Your task to perform on an android device: Open Youtube and go to the subscriptions tab Image 0: 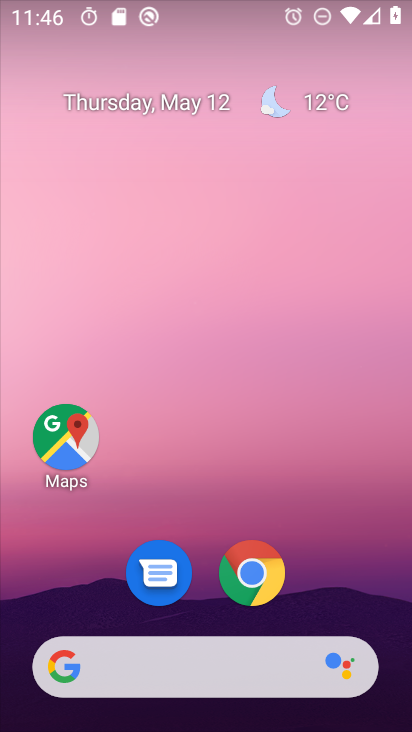
Step 0: drag from (401, 684) to (358, 388)
Your task to perform on an android device: Open Youtube and go to the subscriptions tab Image 1: 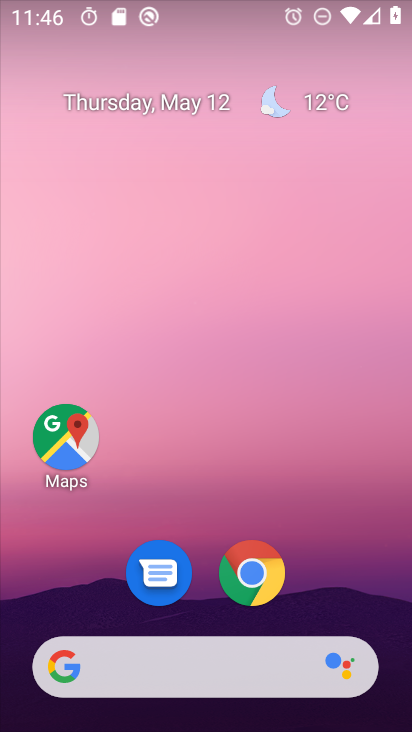
Step 1: drag from (404, 692) to (406, 348)
Your task to perform on an android device: Open Youtube and go to the subscriptions tab Image 2: 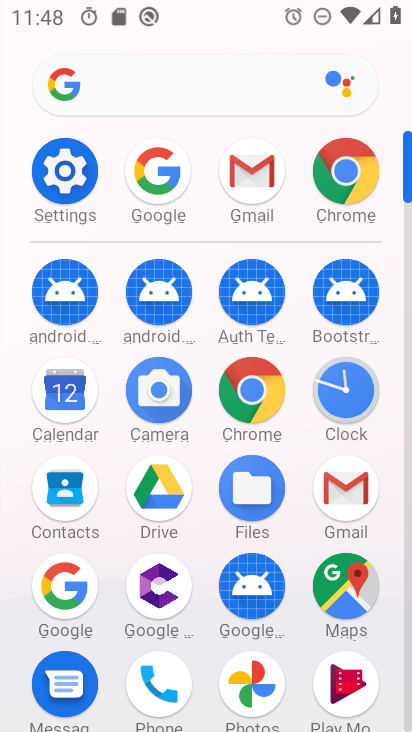
Step 2: drag from (410, 146) to (402, 87)
Your task to perform on an android device: Open Youtube and go to the subscriptions tab Image 3: 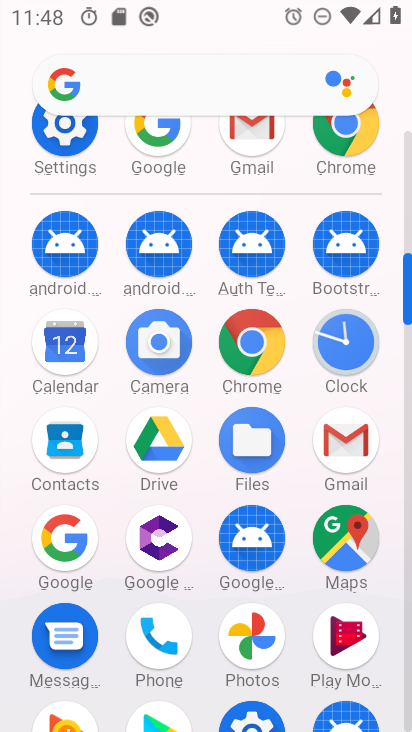
Step 3: drag from (411, 262) to (411, 182)
Your task to perform on an android device: Open Youtube and go to the subscriptions tab Image 4: 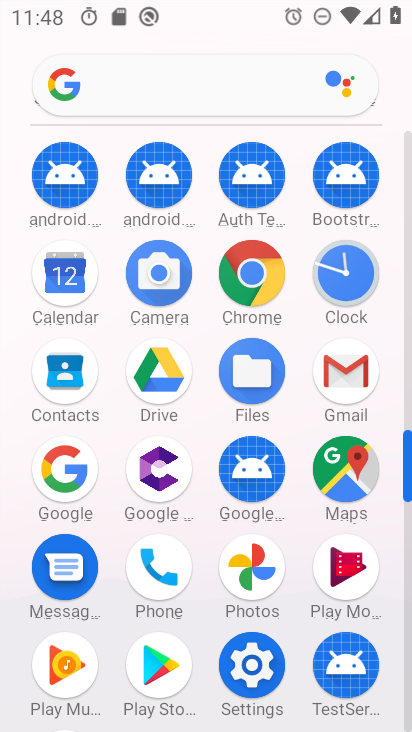
Step 4: drag from (411, 435) to (382, 631)
Your task to perform on an android device: Open Youtube and go to the subscriptions tab Image 5: 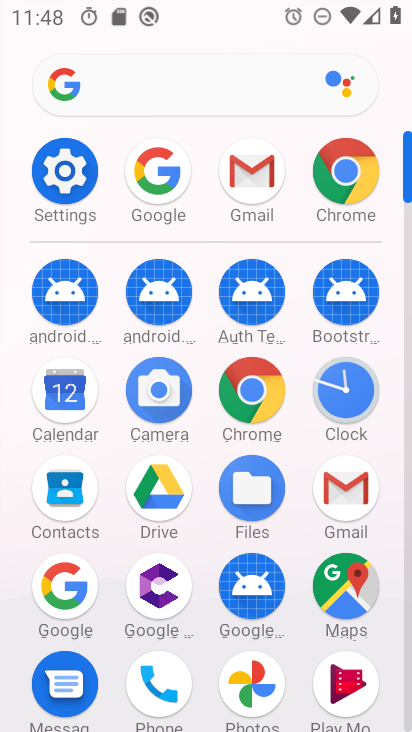
Step 5: click (65, 689)
Your task to perform on an android device: Open Youtube and go to the subscriptions tab Image 6: 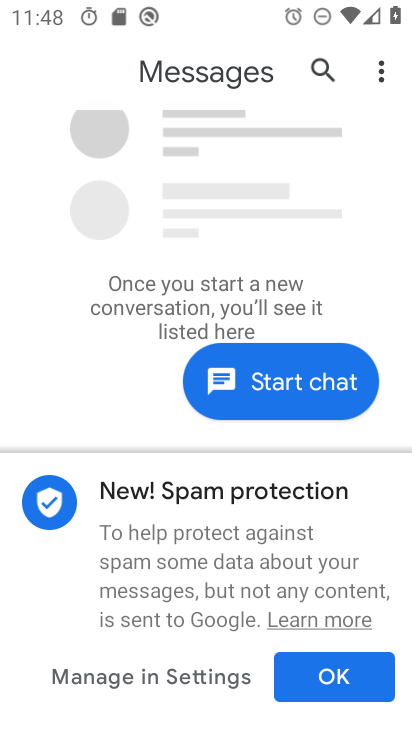
Step 6: press home button
Your task to perform on an android device: Open Youtube and go to the subscriptions tab Image 7: 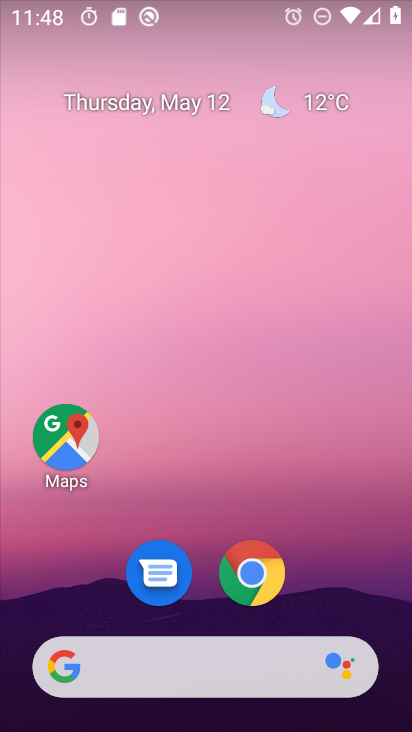
Step 7: drag from (392, 642) to (357, 314)
Your task to perform on an android device: Open Youtube and go to the subscriptions tab Image 8: 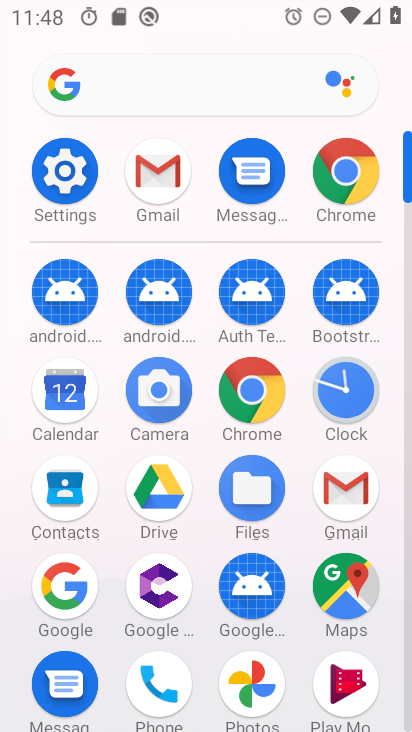
Step 8: drag from (411, 140) to (399, 65)
Your task to perform on an android device: Open Youtube and go to the subscriptions tab Image 9: 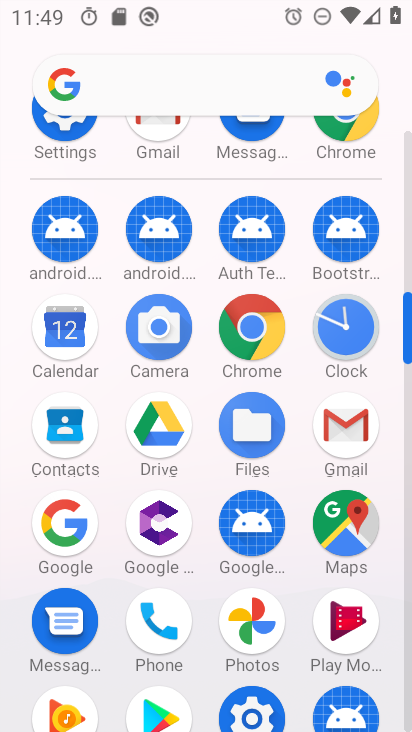
Step 9: drag from (406, 299) to (411, 184)
Your task to perform on an android device: Open Youtube and go to the subscriptions tab Image 10: 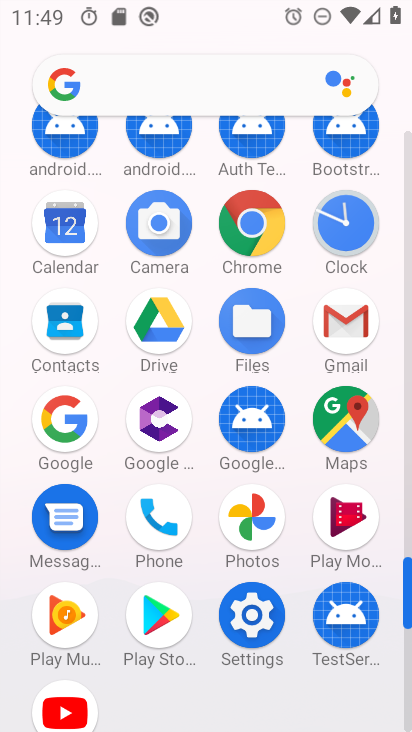
Step 10: click (65, 701)
Your task to perform on an android device: Open Youtube and go to the subscriptions tab Image 11: 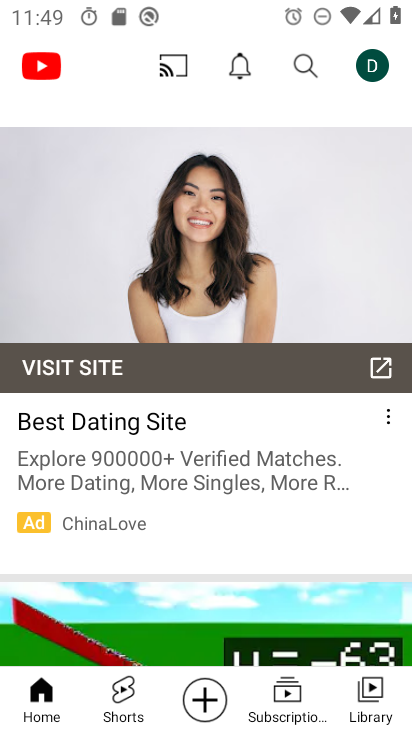
Step 11: click (287, 700)
Your task to perform on an android device: Open Youtube and go to the subscriptions tab Image 12: 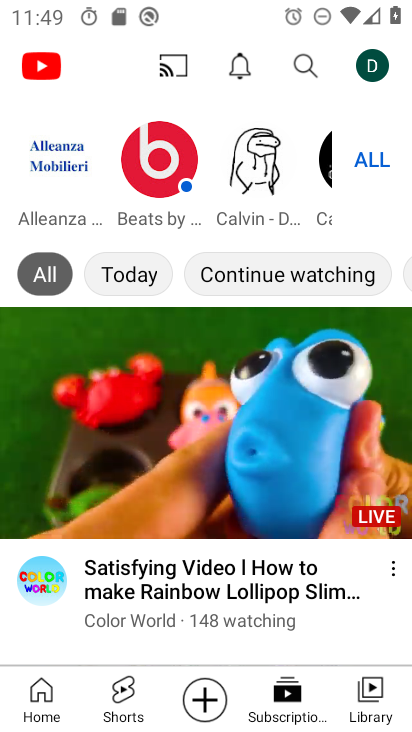
Step 12: click (277, 696)
Your task to perform on an android device: Open Youtube and go to the subscriptions tab Image 13: 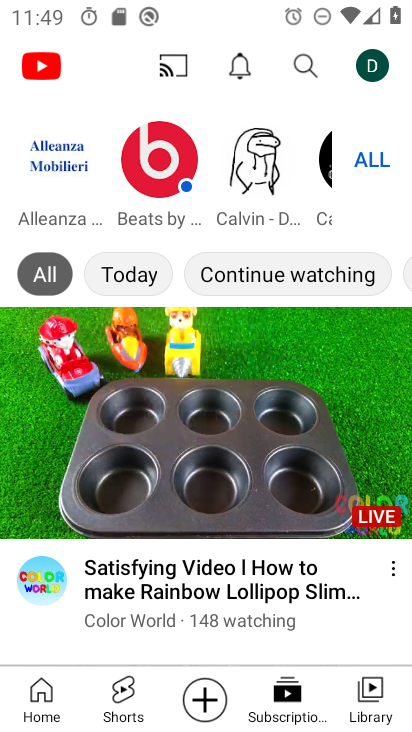
Step 13: task complete